Your task to perform on an android device: change alarm snooze length Image 0: 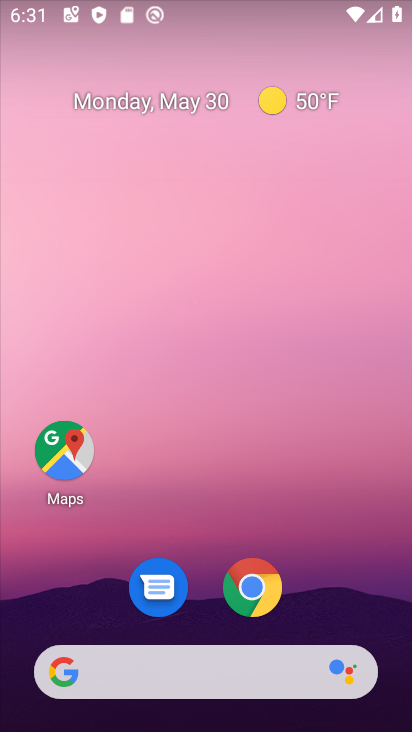
Step 0: drag from (339, 515) to (207, 9)
Your task to perform on an android device: change alarm snooze length Image 1: 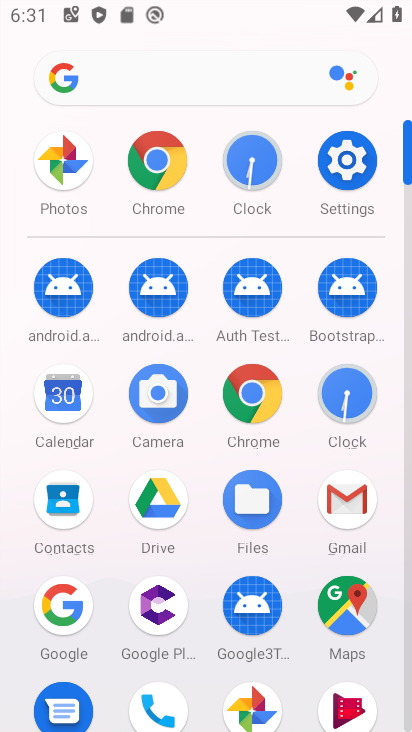
Step 1: drag from (9, 592) to (36, 224)
Your task to perform on an android device: change alarm snooze length Image 2: 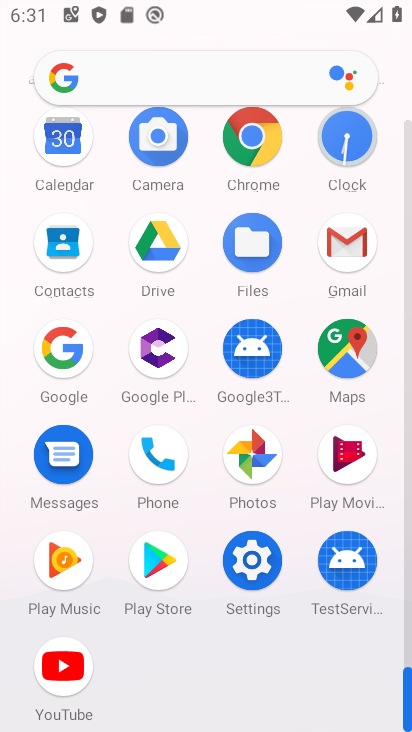
Step 2: click (246, 556)
Your task to perform on an android device: change alarm snooze length Image 3: 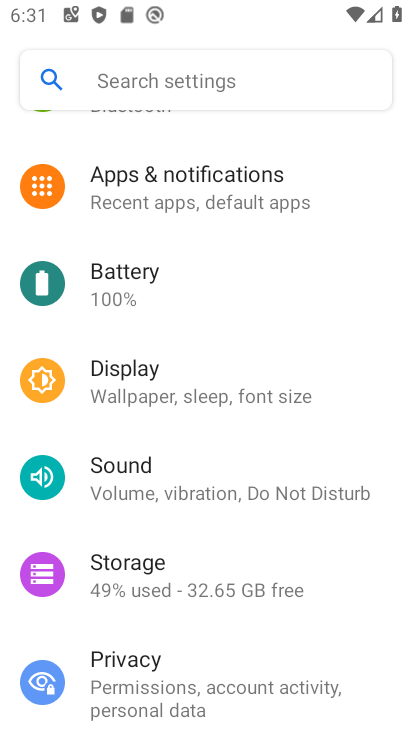
Step 3: press back button
Your task to perform on an android device: change alarm snooze length Image 4: 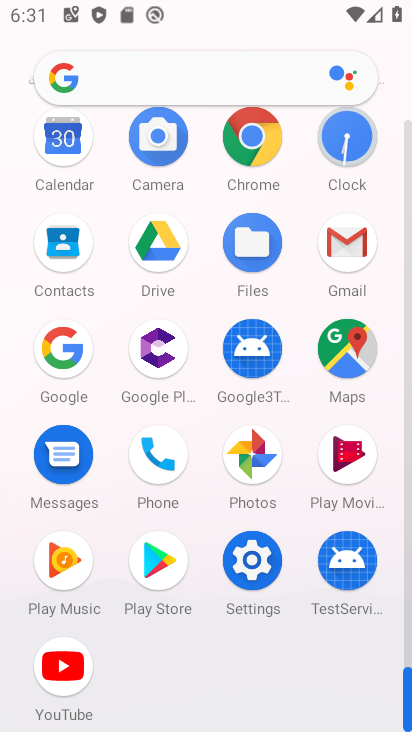
Step 4: click (348, 132)
Your task to perform on an android device: change alarm snooze length Image 5: 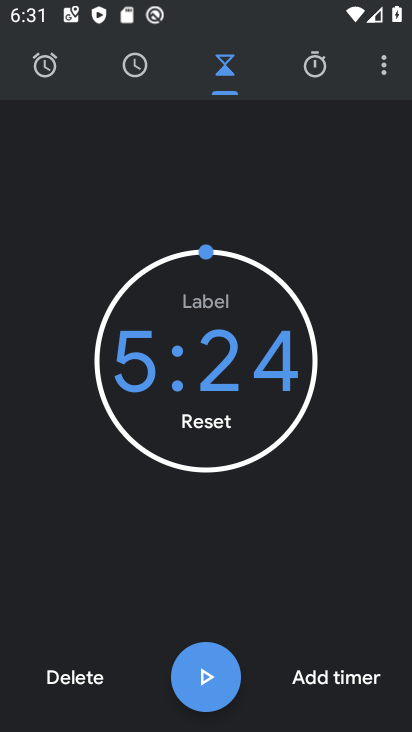
Step 5: drag from (378, 65) to (282, 135)
Your task to perform on an android device: change alarm snooze length Image 6: 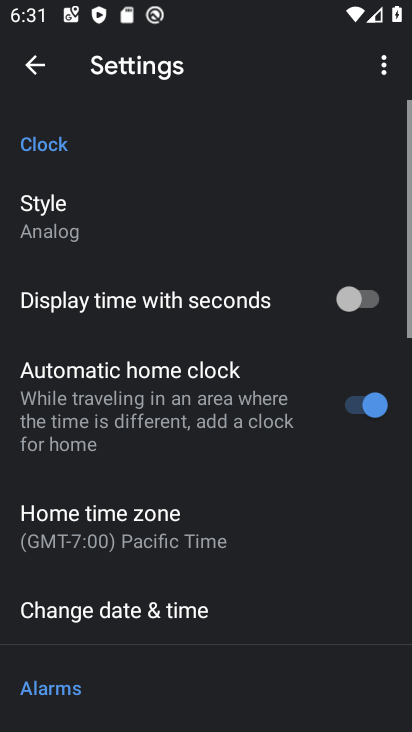
Step 6: drag from (258, 531) to (234, 123)
Your task to perform on an android device: change alarm snooze length Image 7: 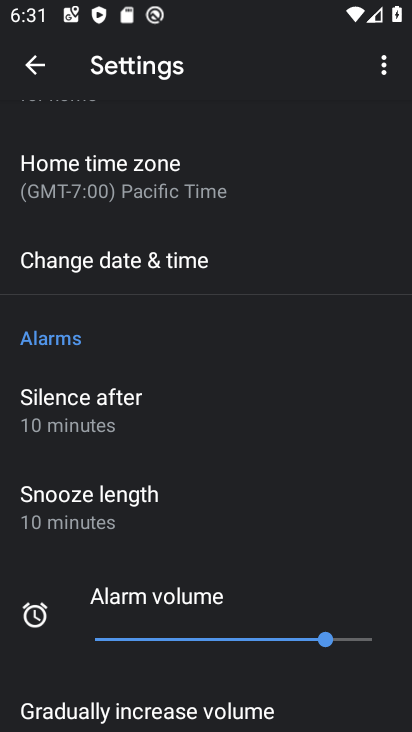
Step 7: click (139, 477)
Your task to perform on an android device: change alarm snooze length Image 8: 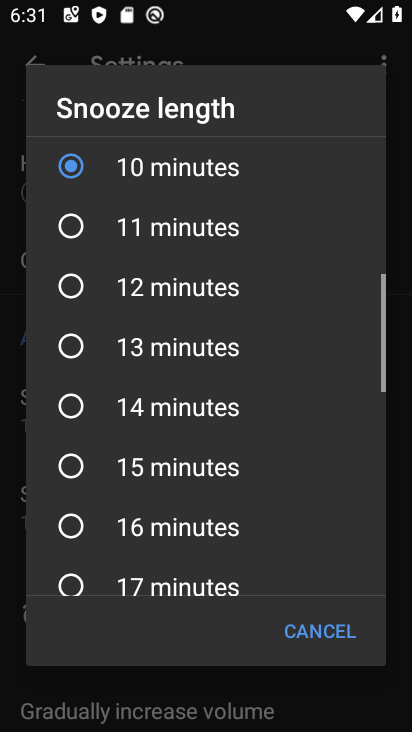
Step 8: click (151, 224)
Your task to perform on an android device: change alarm snooze length Image 9: 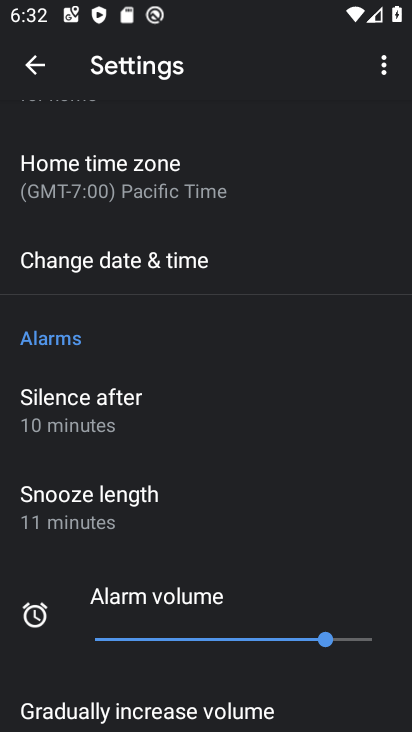
Step 9: task complete